Your task to perform on an android device: toggle notification dots Image 0: 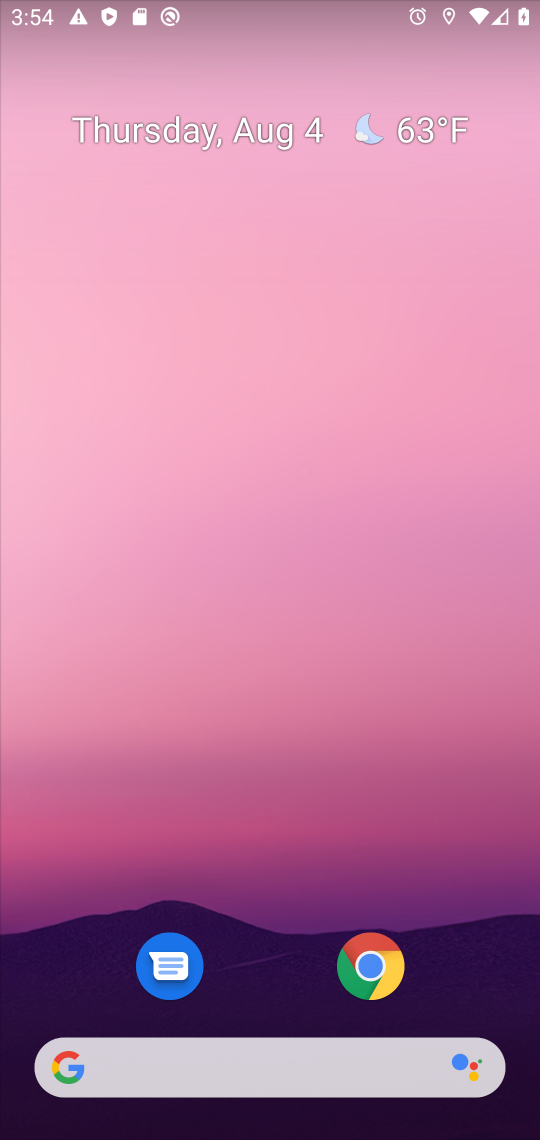
Step 0: press home button
Your task to perform on an android device: toggle notification dots Image 1: 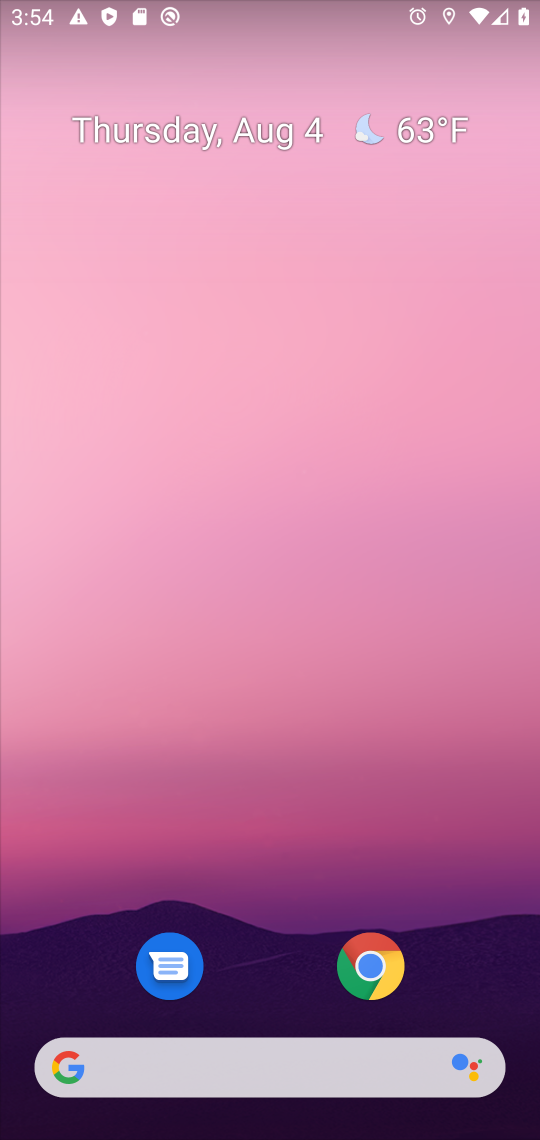
Step 1: drag from (275, 973) to (224, 313)
Your task to perform on an android device: toggle notification dots Image 2: 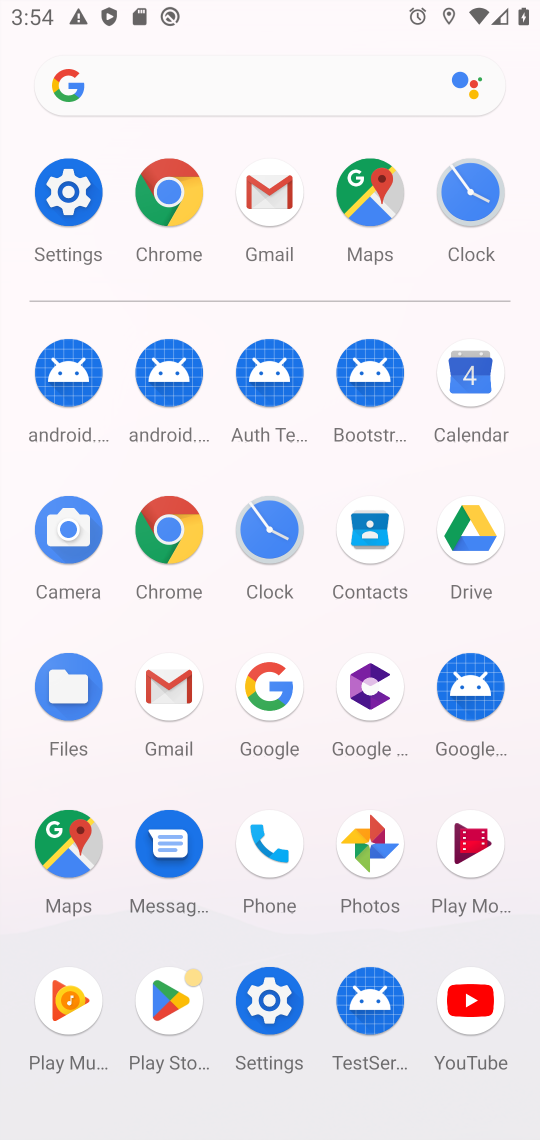
Step 2: click (79, 199)
Your task to perform on an android device: toggle notification dots Image 3: 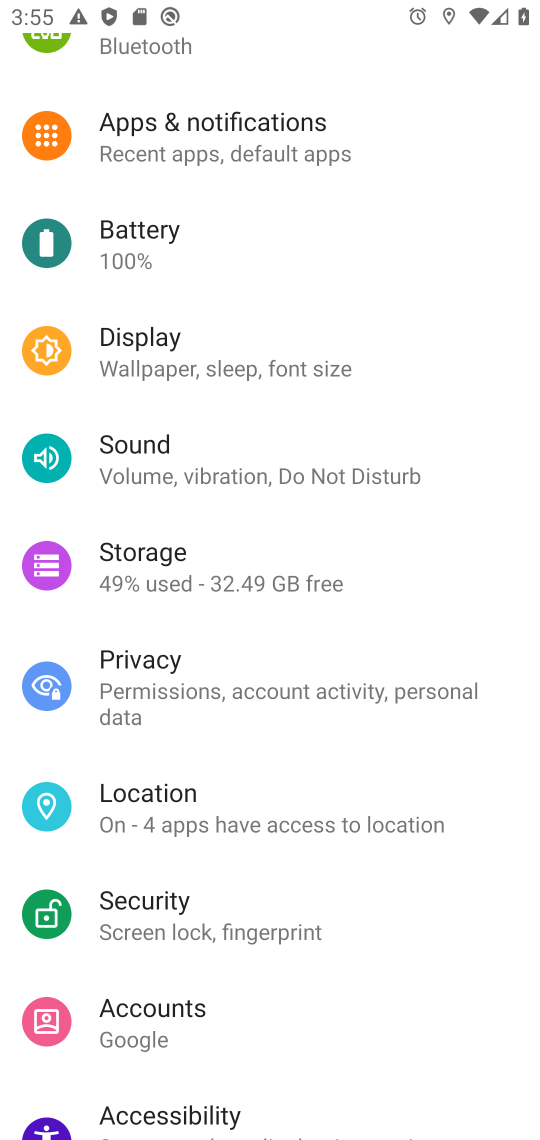
Step 3: click (235, 136)
Your task to perform on an android device: toggle notification dots Image 4: 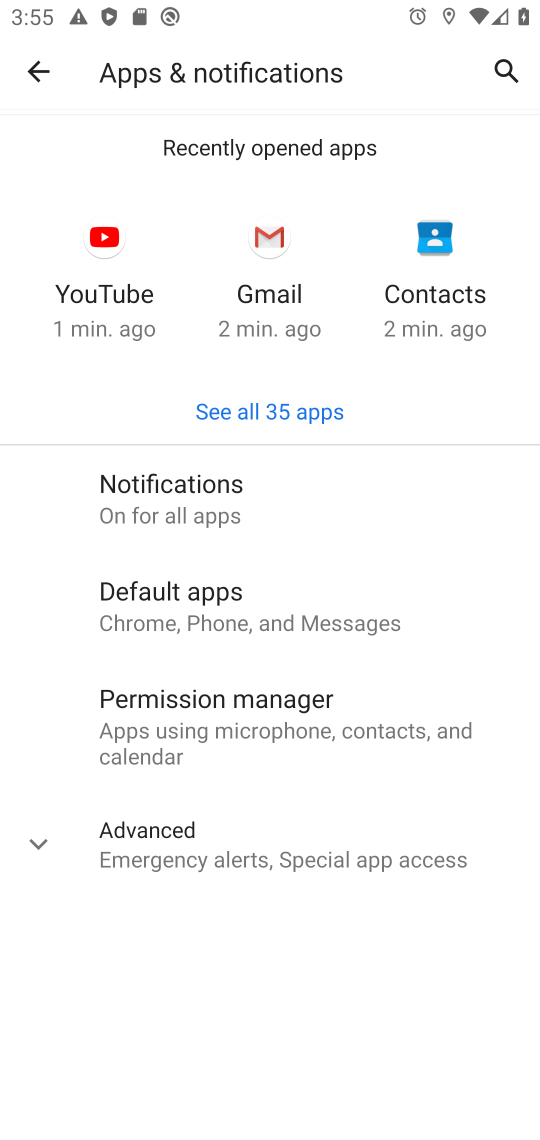
Step 4: click (180, 482)
Your task to perform on an android device: toggle notification dots Image 5: 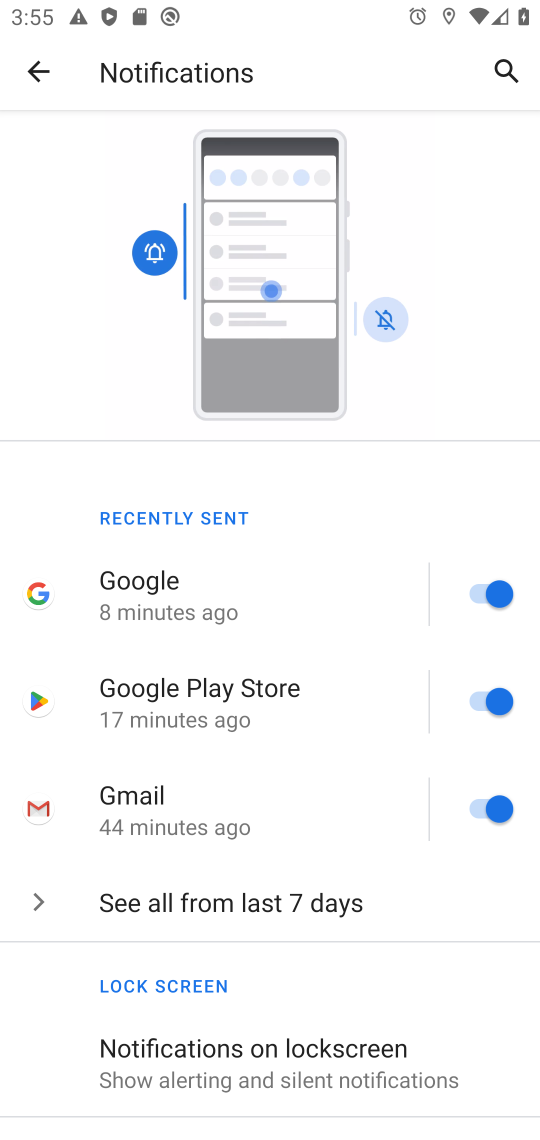
Step 5: drag from (356, 1012) to (286, 414)
Your task to perform on an android device: toggle notification dots Image 6: 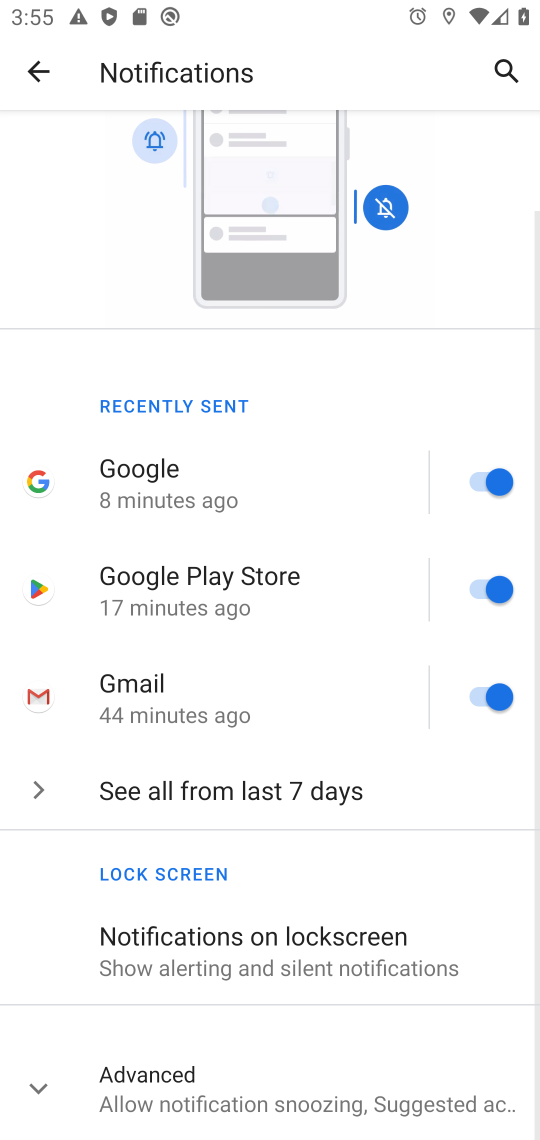
Step 6: click (164, 1088)
Your task to perform on an android device: toggle notification dots Image 7: 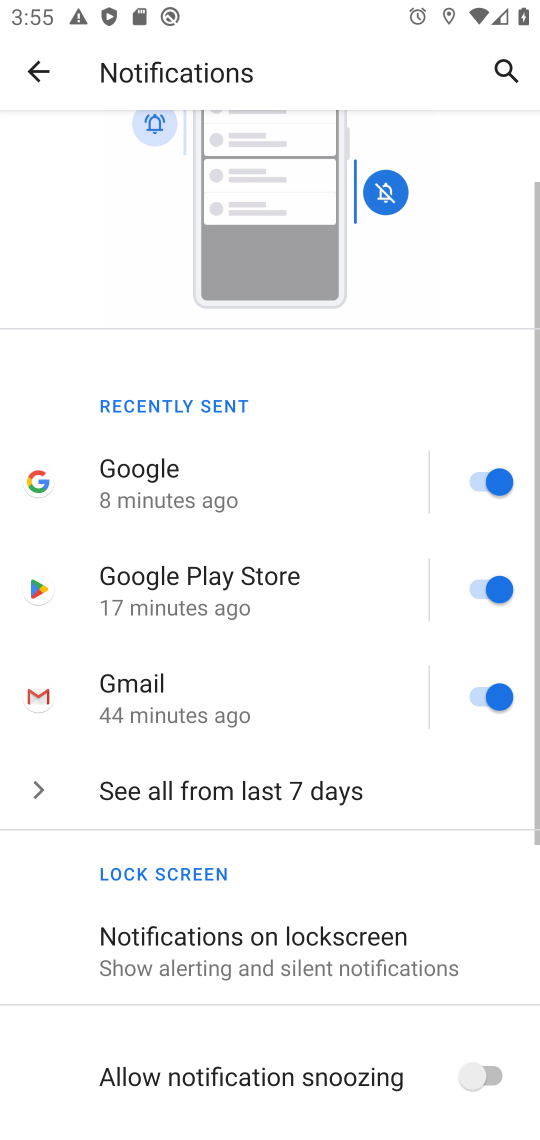
Step 7: drag from (326, 973) to (341, 332)
Your task to perform on an android device: toggle notification dots Image 8: 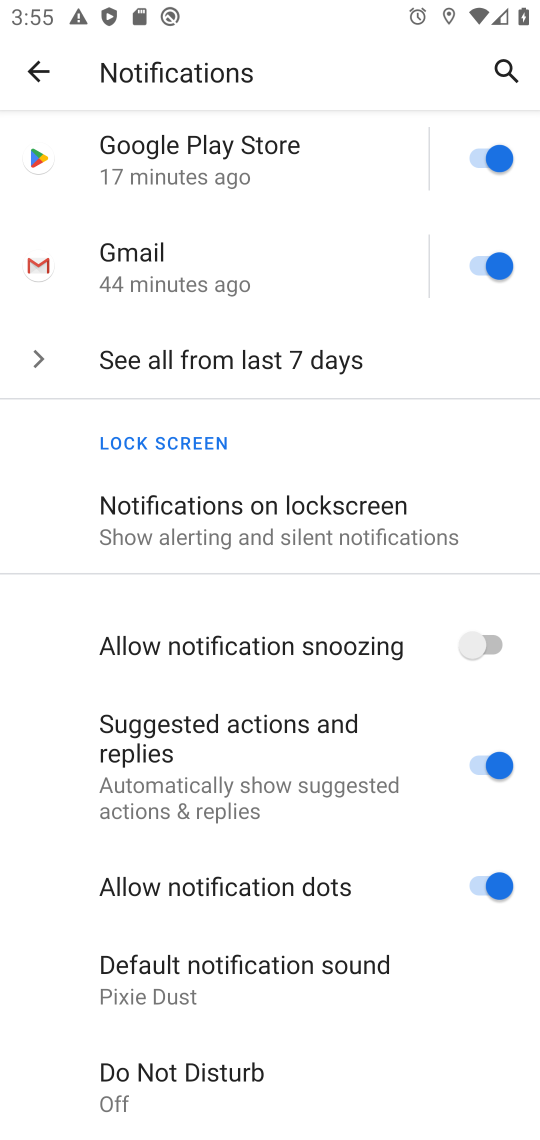
Step 8: click (497, 887)
Your task to perform on an android device: toggle notification dots Image 9: 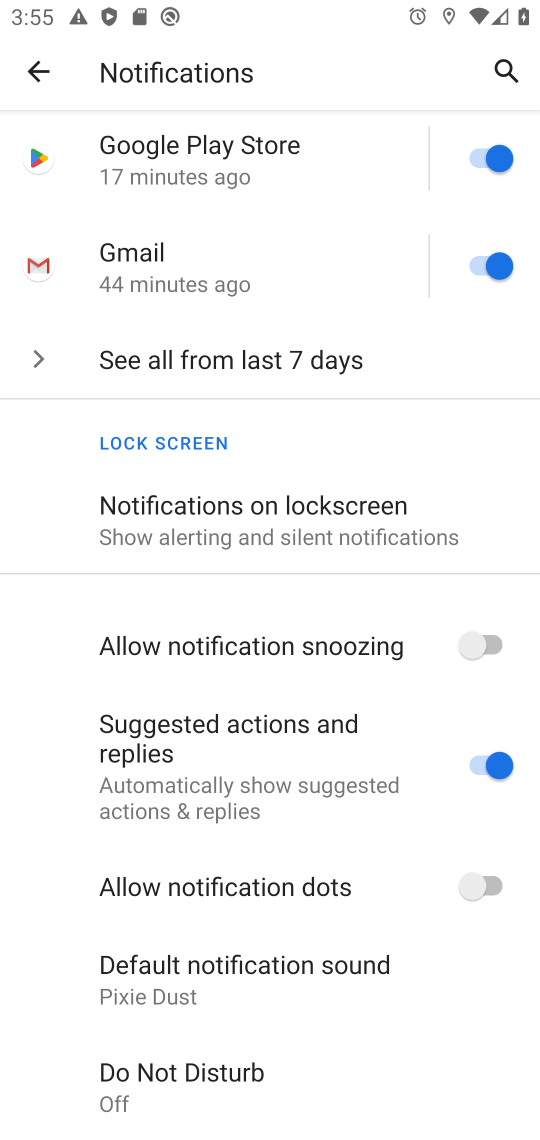
Step 9: task complete